Your task to perform on an android device: turn on priority inbox in the gmail app Image 0: 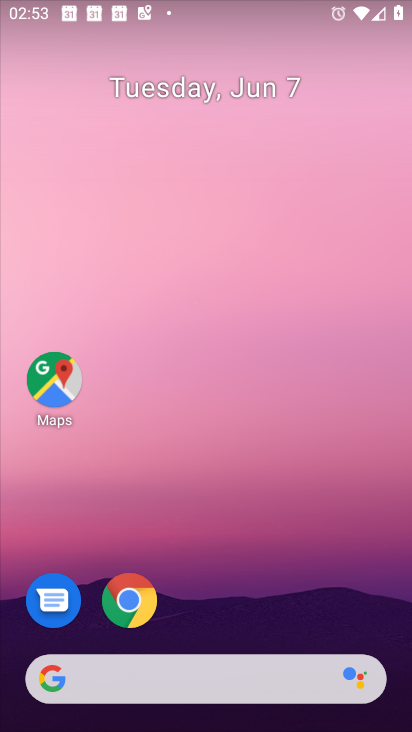
Step 0: drag from (213, 694) to (208, 168)
Your task to perform on an android device: turn on priority inbox in the gmail app Image 1: 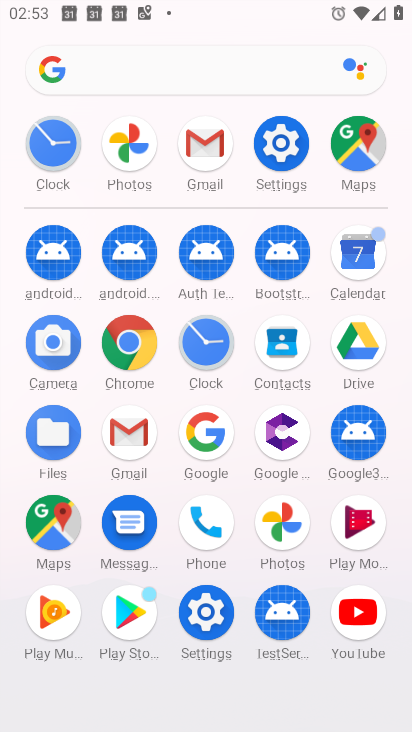
Step 1: click (125, 432)
Your task to perform on an android device: turn on priority inbox in the gmail app Image 2: 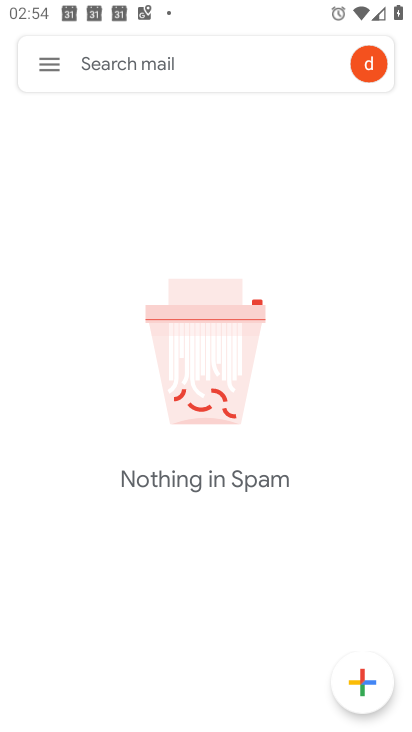
Step 2: click (43, 65)
Your task to perform on an android device: turn on priority inbox in the gmail app Image 3: 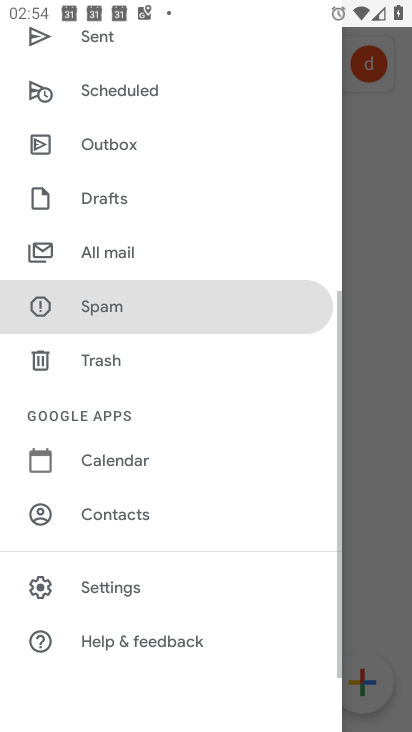
Step 3: click (107, 587)
Your task to perform on an android device: turn on priority inbox in the gmail app Image 4: 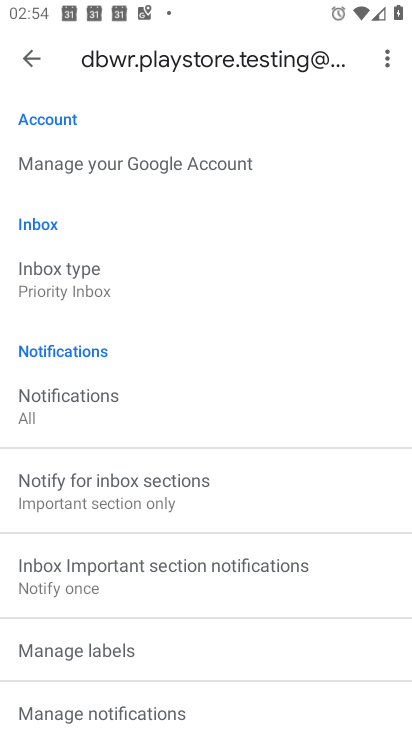
Step 4: task complete